Your task to perform on an android device: open app "Flipkart Online Shopping App" (install if not already installed), go to login, and select forgot password Image 0: 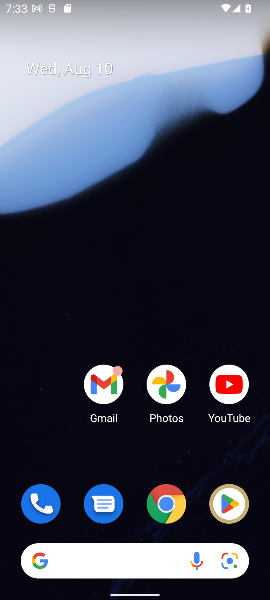
Step 0: click (228, 503)
Your task to perform on an android device: open app "Flipkart Online Shopping App" (install if not already installed), go to login, and select forgot password Image 1: 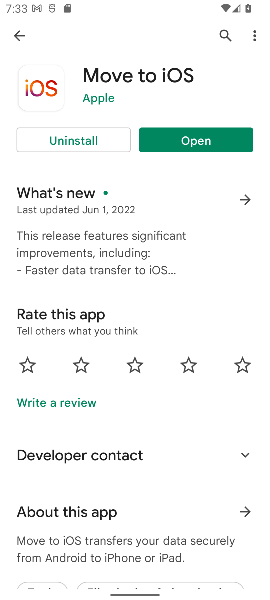
Step 1: click (222, 33)
Your task to perform on an android device: open app "Flipkart Online Shopping App" (install if not already installed), go to login, and select forgot password Image 2: 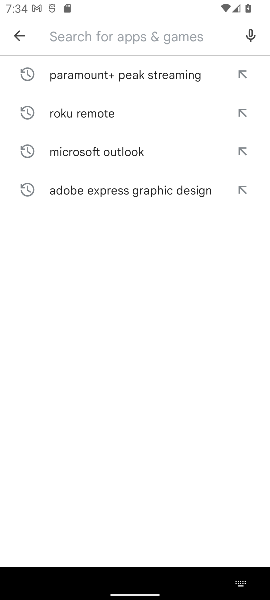
Step 2: type "flipkart"
Your task to perform on an android device: open app "Flipkart Online Shopping App" (install if not already installed), go to login, and select forgot password Image 3: 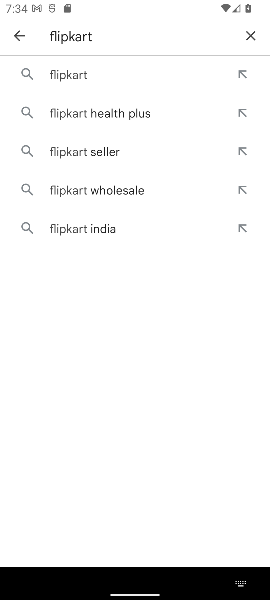
Step 3: click (69, 76)
Your task to perform on an android device: open app "Flipkart Online Shopping App" (install if not already installed), go to login, and select forgot password Image 4: 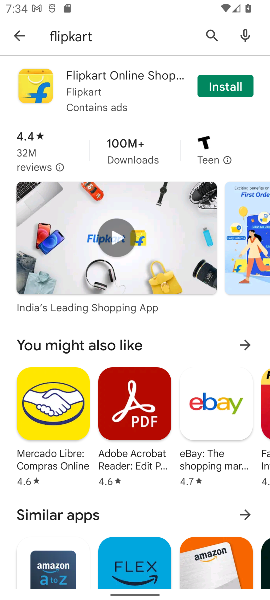
Step 4: click (226, 86)
Your task to perform on an android device: open app "Flipkart Online Shopping App" (install if not already installed), go to login, and select forgot password Image 5: 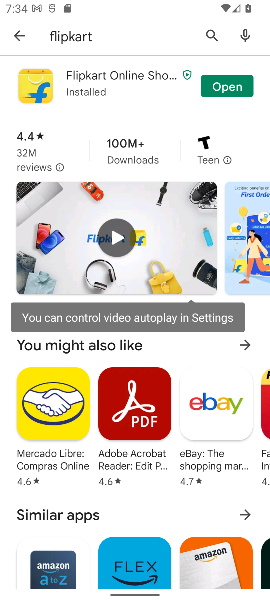
Step 5: click (225, 84)
Your task to perform on an android device: open app "Flipkart Online Shopping App" (install if not already installed), go to login, and select forgot password Image 6: 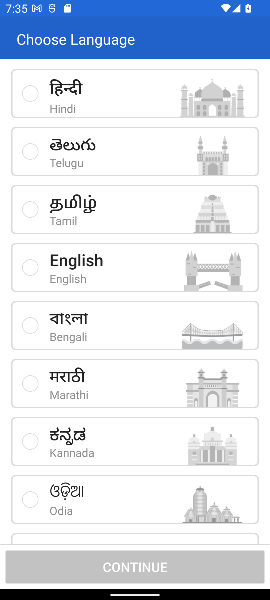
Step 6: click (23, 267)
Your task to perform on an android device: open app "Flipkart Online Shopping App" (install if not already installed), go to login, and select forgot password Image 7: 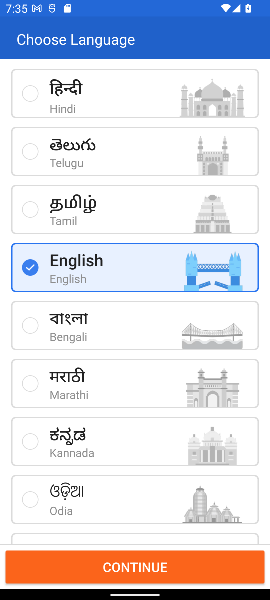
Step 7: click (165, 563)
Your task to perform on an android device: open app "Flipkart Online Shopping App" (install if not already installed), go to login, and select forgot password Image 8: 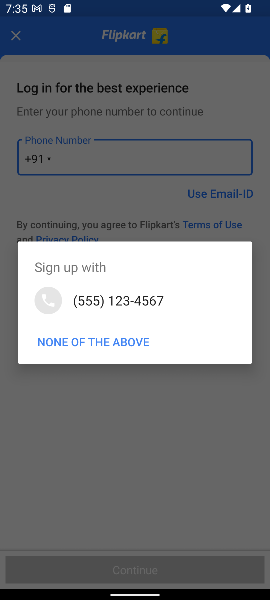
Step 8: click (122, 350)
Your task to perform on an android device: open app "Flipkart Online Shopping App" (install if not already installed), go to login, and select forgot password Image 9: 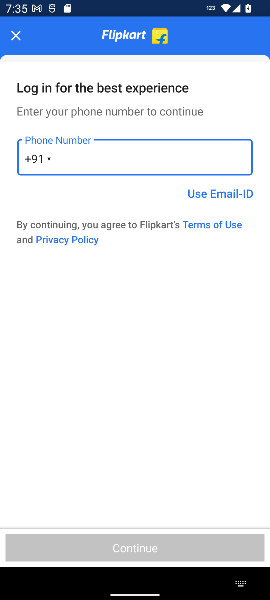
Step 9: click (221, 194)
Your task to perform on an android device: open app "Flipkart Online Shopping App" (install if not already installed), go to login, and select forgot password Image 10: 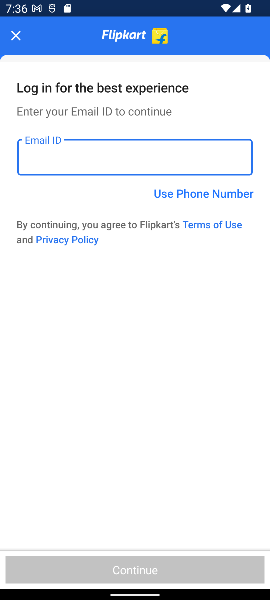
Step 10: task complete